Your task to perform on an android device: Show me productivity apps on the Play Store Image 0: 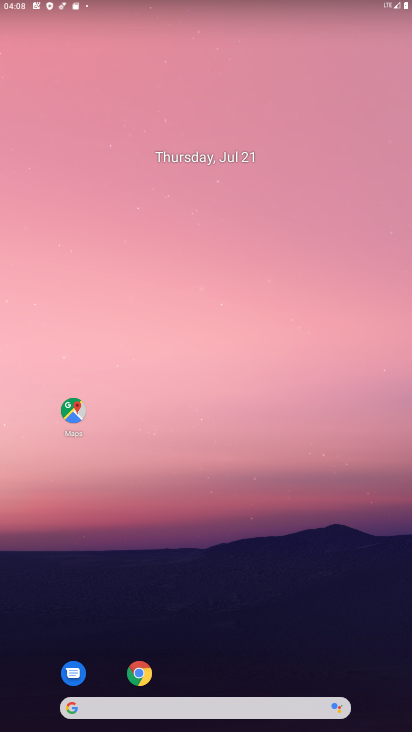
Step 0: drag from (326, 557) to (357, 133)
Your task to perform on an android device: Show me productivity apps on the Play Store Image 1: 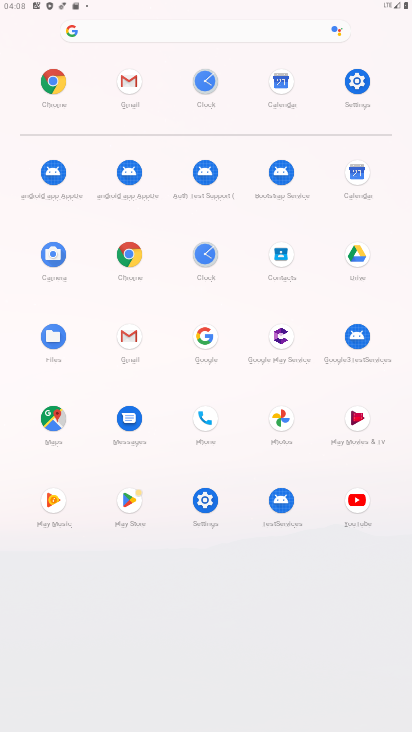
Step 1: click (118, 502)
Your task to perform on an android device: Show me productivity apps on the Play Store Image 2: 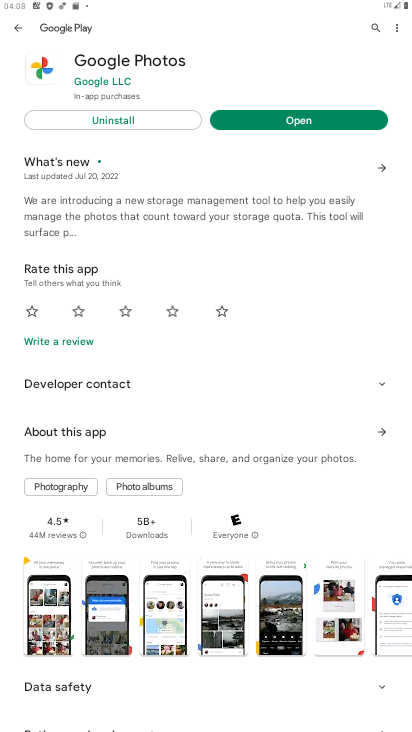
Step 2: click (19, 35)
Your task to perform on an android device: Show me productivity apps on the Play Store Image 3: 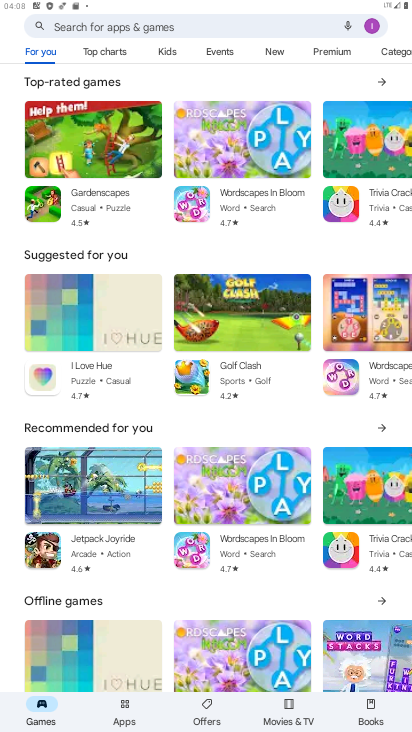
Step 3: click (125, 703)
Your task to perform on an android device: Show me productivity apps on the Play Store Image 4: 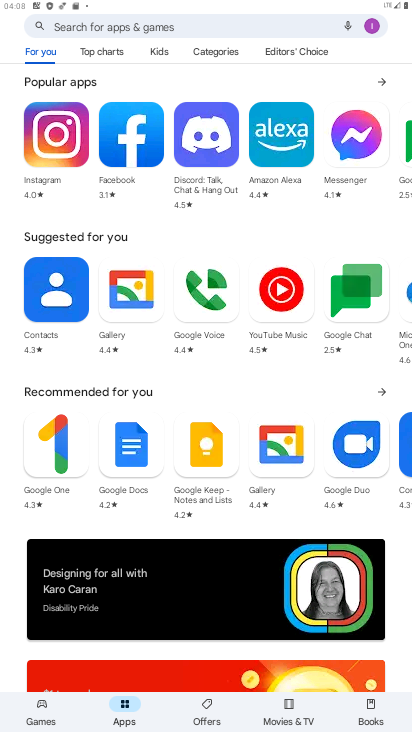
Step 4: task complete